Your task to perform on an android device: empty trash in google photos Image 0: 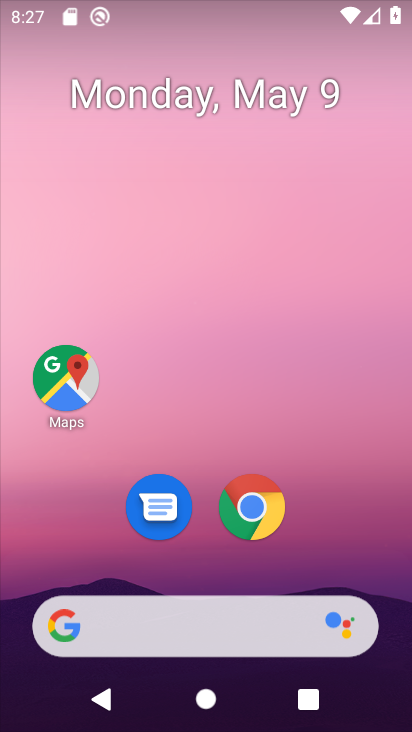
Step 0: drag from (335, 545) to (294, 67)
Your task to perform on an android device: empty trash in google photos Image 1: 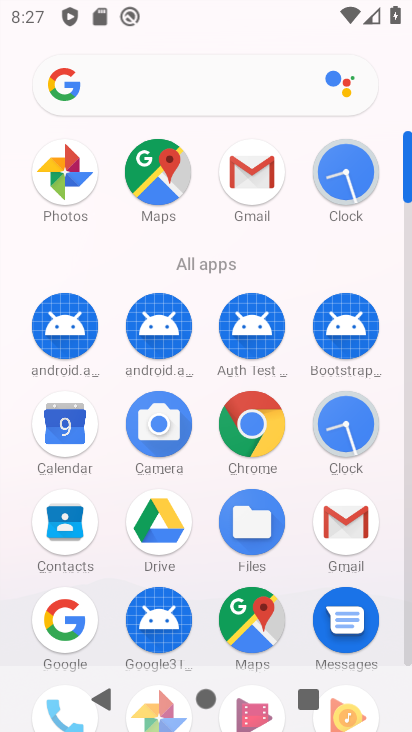
Step 1: click (67, 170)
Your task to perform on an android device: empty trash in google photos Image 2: 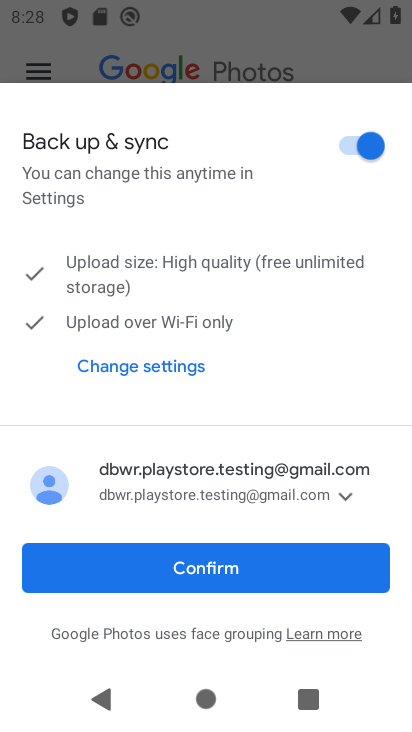
Step 2: click (207, 570)
Your task to perform on an android device: empty trash in google photos Image 3: 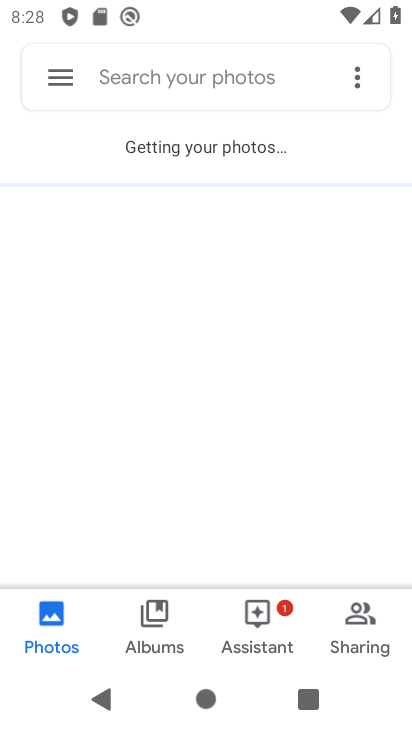
Step 3: click (62, 73)
Your task to perform on an android device: empty trash in google photos Image 4: 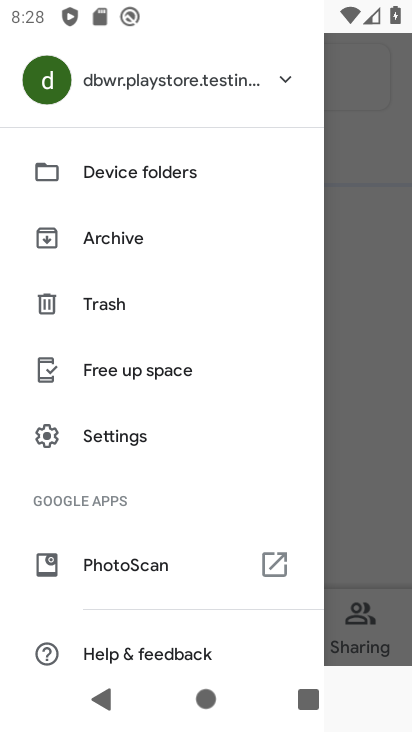
Step 4: click (107, 302)
Your task to perform on an android device: empty trash in google photos Image 5: 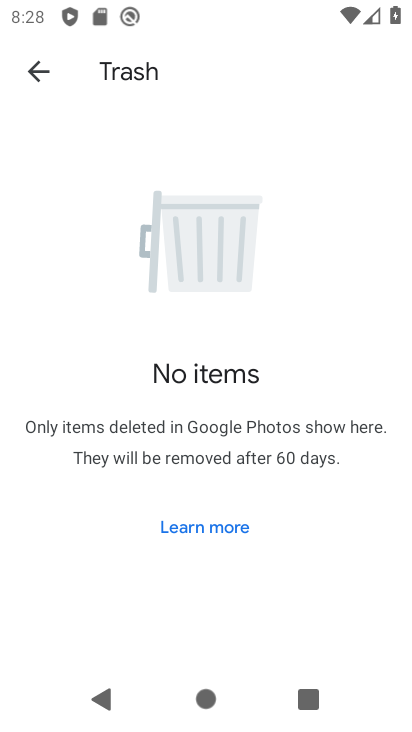
Step 5: task complete